Your task to perform on an android device: Open settings Image 0: 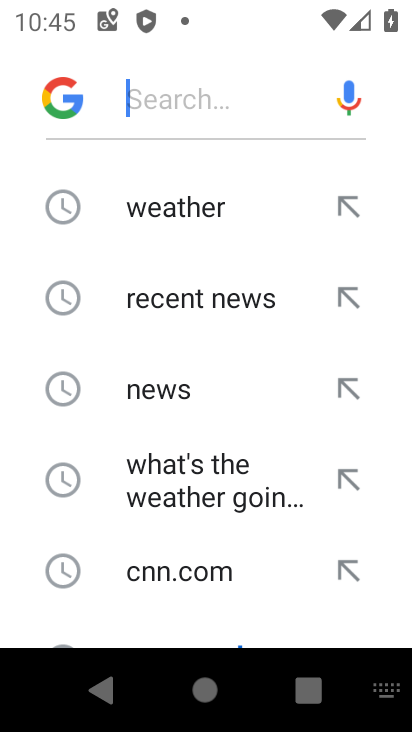
Step 0: press home button
Your task to perform on an android device: Open settings Image 1: 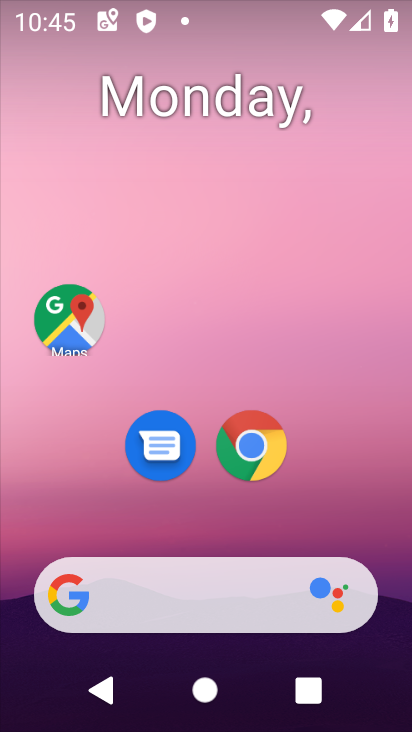
Step 1: drag from (208, 517) to (239, 132)
Your task to perform on an android device: Open settings Image 2: 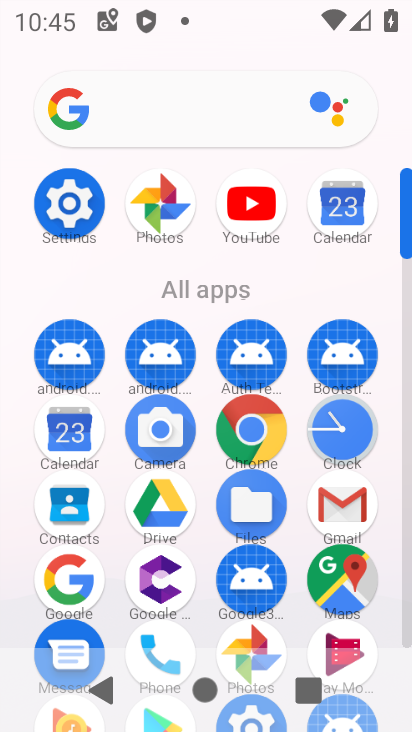
Step 2: drag from (201, 618) to (195, 379)
Your task to perform on an android device: Open settings Image 3: 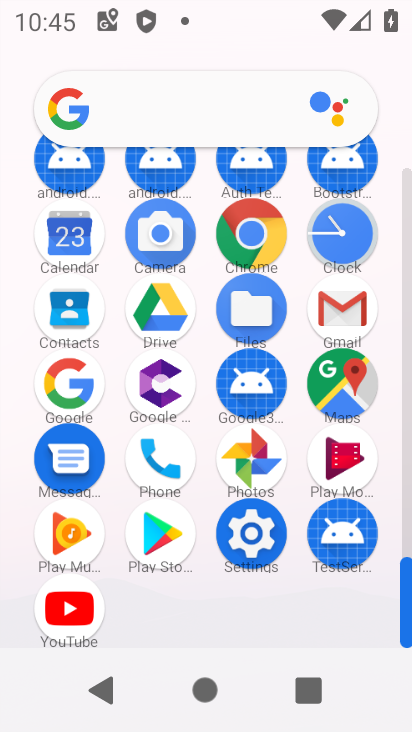
Step 3: click (247, 536)
Your task to perform on an android device: Open settings Image 4: 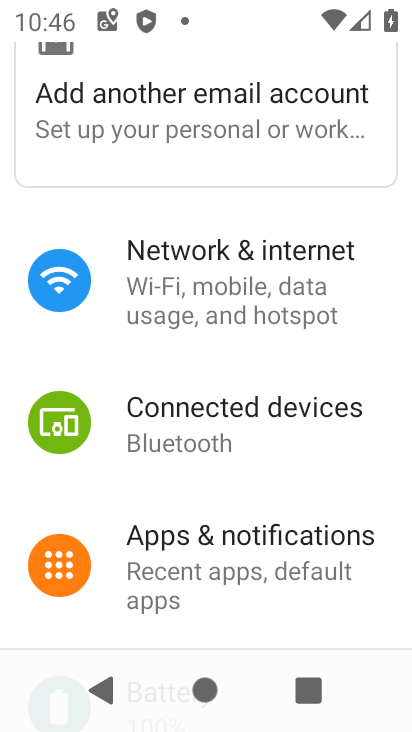
Step 4: task complete